Your task to perform on an android device: change notification settings in the gmail app Image 0: 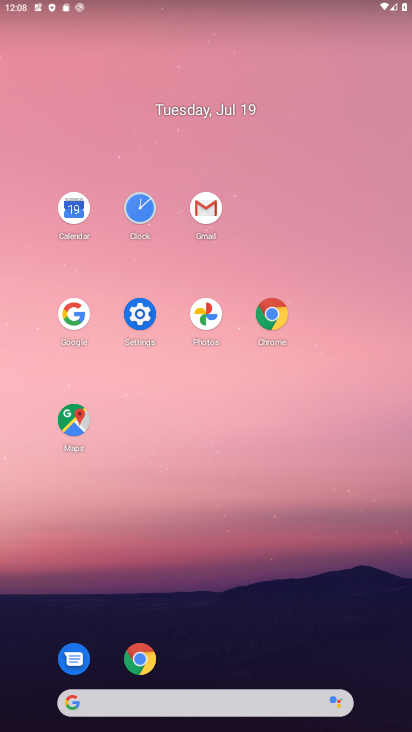
Step 0: click (206, 205)
Your task to perform on an android device: change notification settings in the gmail app Image 1: 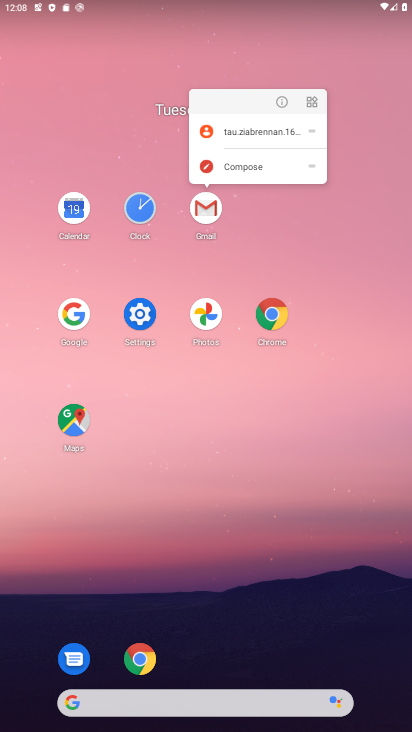
Step 1: click (197, 200)
Your task to perform on an android device: change notification settings in the gmail app Image 2: 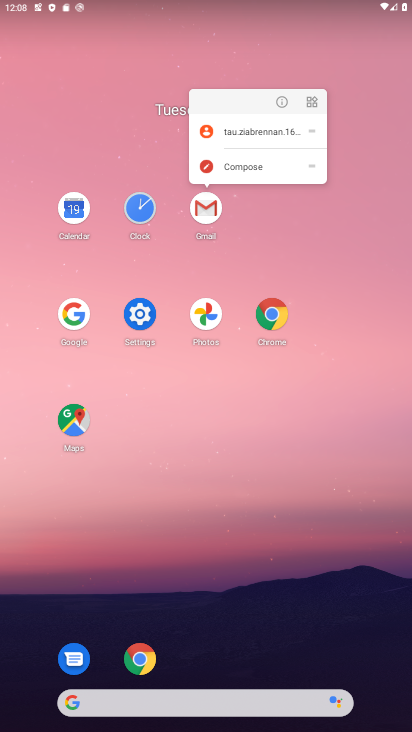
Step 2: click (209, 208)
Your task to perform on an android device: change notification settings in the gmail app Image 3: 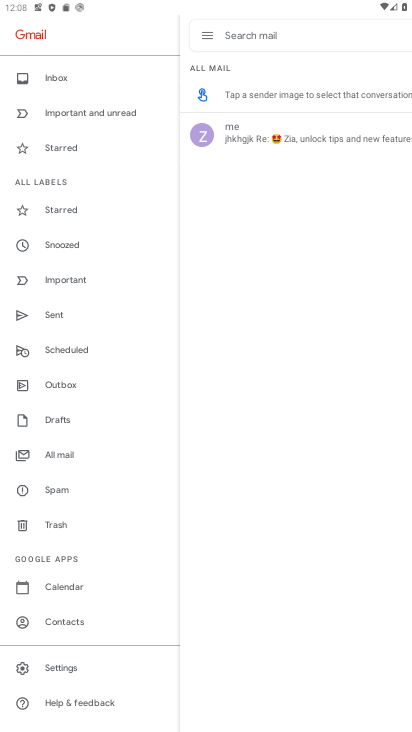
Step 3: click (56, 662)
Your task to perform on an android device: change notification settings in the gmail app Image 4: 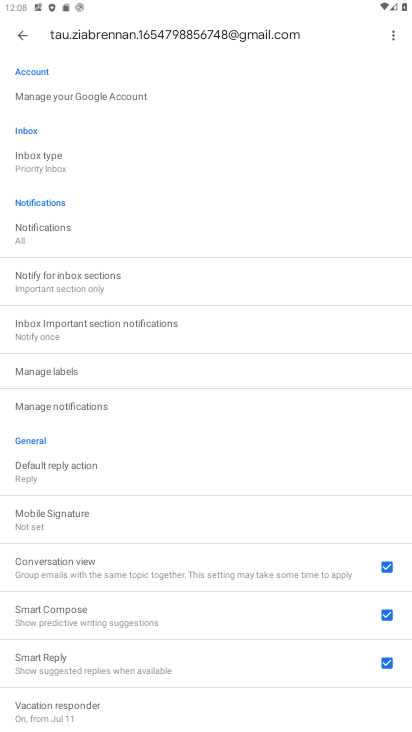
Step 4: click (59, 231)
Your task to perform on an android device: change notification settings in the gmail app Image 5: 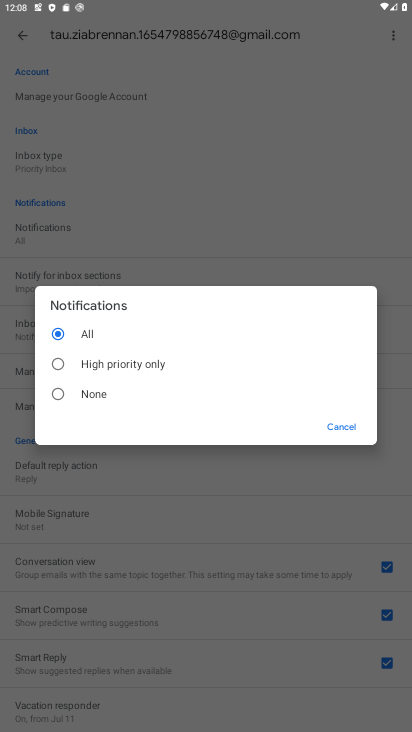
Step 5: click (134, 370)
Your task to perform on an android device: change notification settings in the gmail app Image 6: 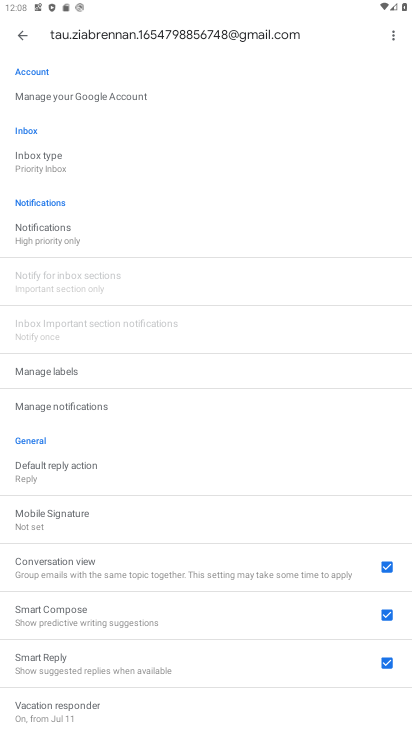
Step 6: task complete